Your task to perform on an android device: check storage Image 0: 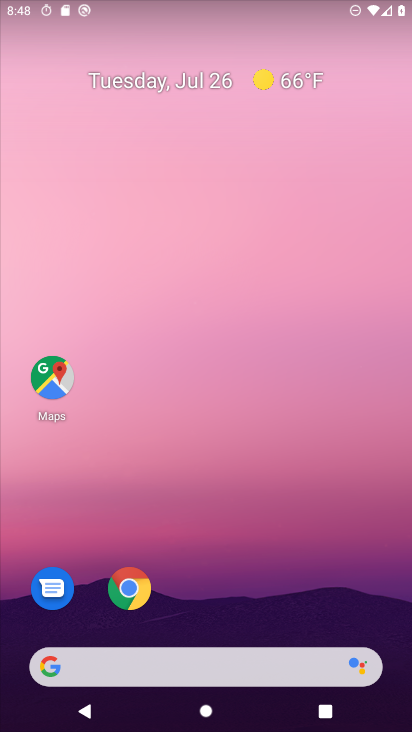
Step 0: drag from (233, 625) to (232, 351)
Your task to perform on an android device: check storage Image 1: 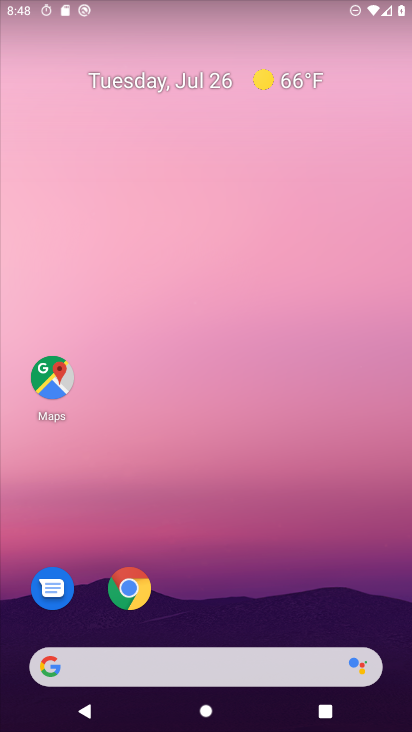
Step 1: drag from (231, 701) to (212, 97)
Your task to perform on an android device: check storage Image 2: 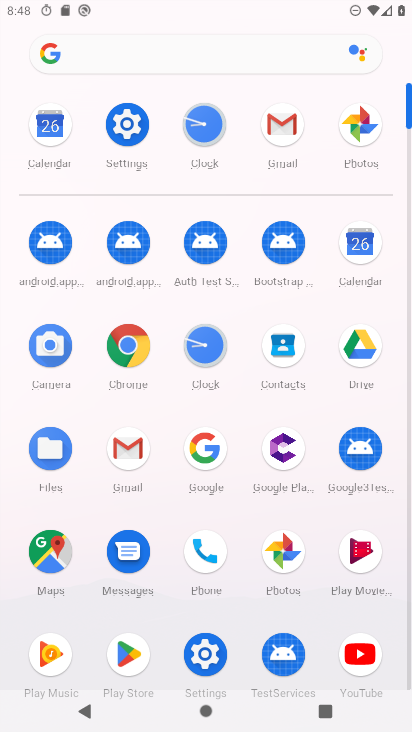
Step 2: click (200, 652)
Your task to perform on an android device: check storage Image 3: 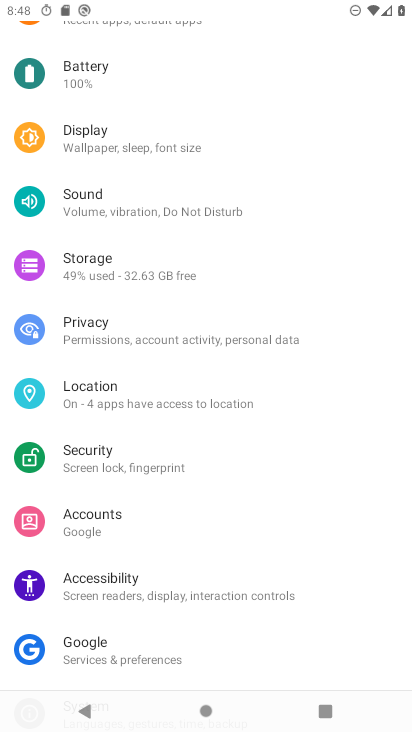
Step 3: click (86, 265)
Your task to perform on an android device: check storage Image 4: 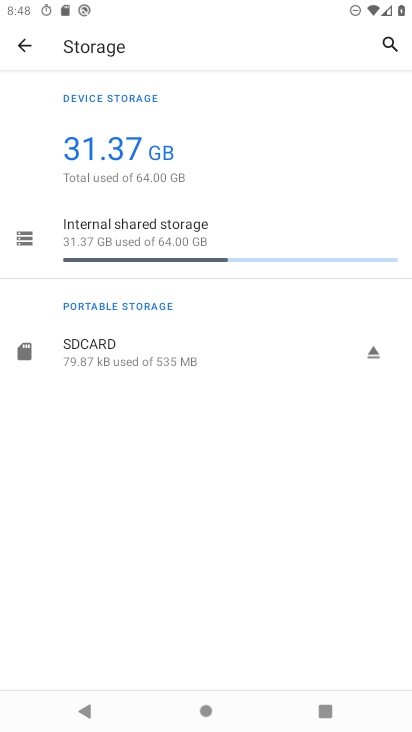
Step 4: task complete